Your task to perform on an android device: change the clock display to digital Image 0: 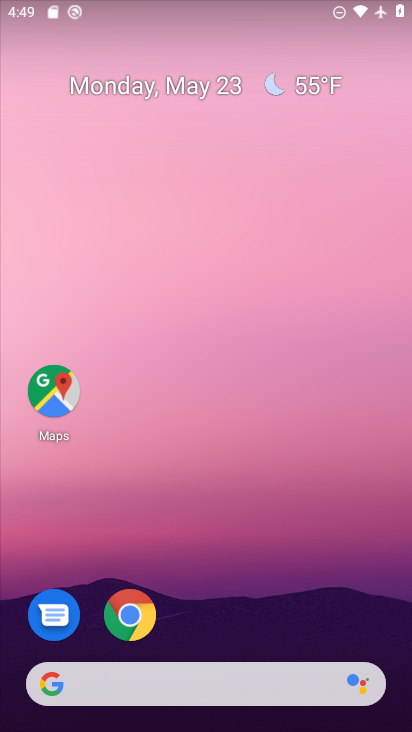
Step 0: drag from (358, 634) to (340, 278)
Your task to perform on an android device: change the clock display to digital Image 1: 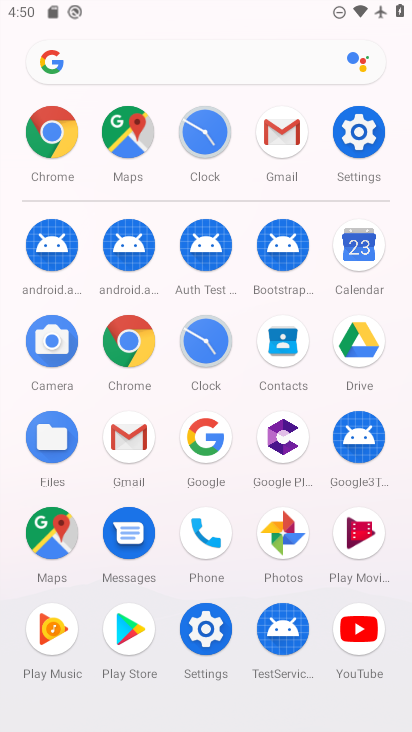
Step 1: click (215, 349)
Your task to perform on an android device: change the clock display to digital Image 2: 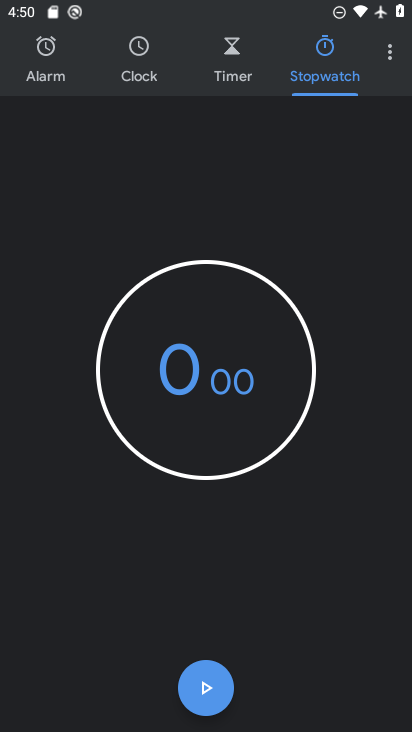
Step 2: click (385, 62)
Your task to perform on an android device: change the clock display to digital Image 3: 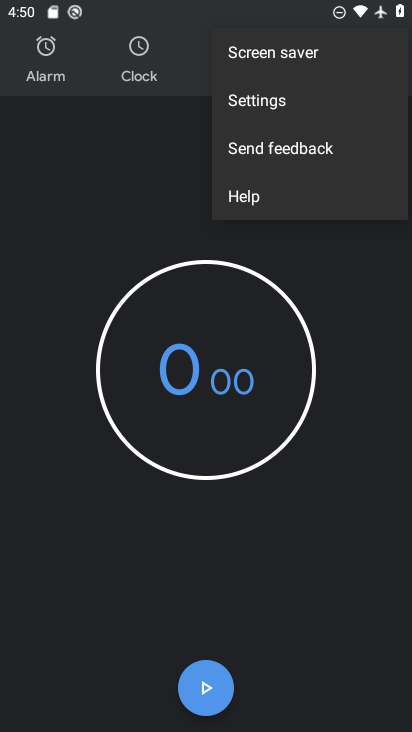
Step 3: click (269, 114)
Your task to perform on an android device: change the clock display to digital Image 4: 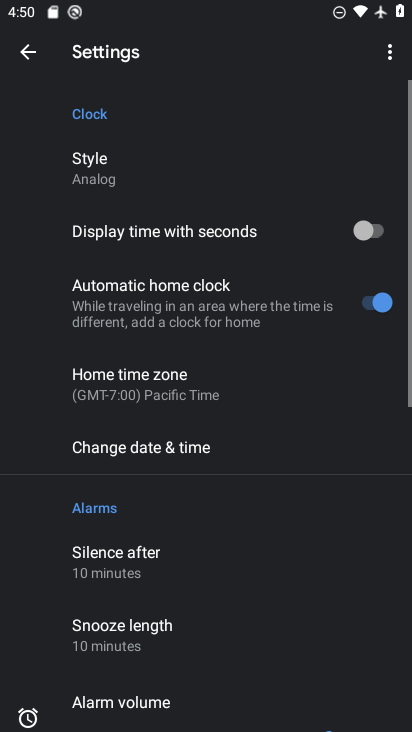
Step 4: drag from (283, 603) to (305, 459)
Your task to perform on an android device: change the clock display to digital Image 5: 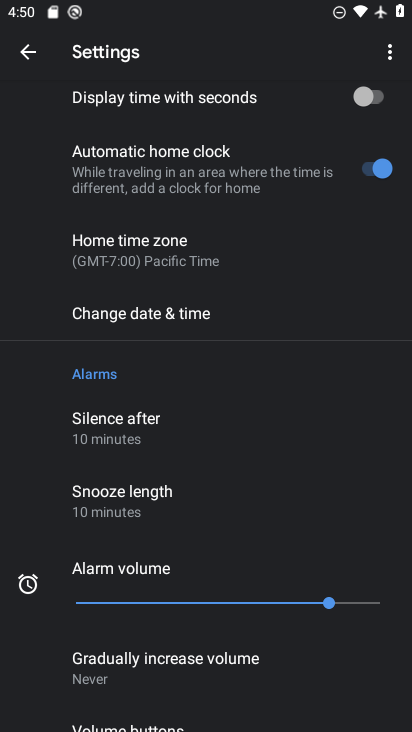
Step 5: drag from (322, 663) to (313, 510)
Your task to perform on an android device: change the clock display to digital Image 6: 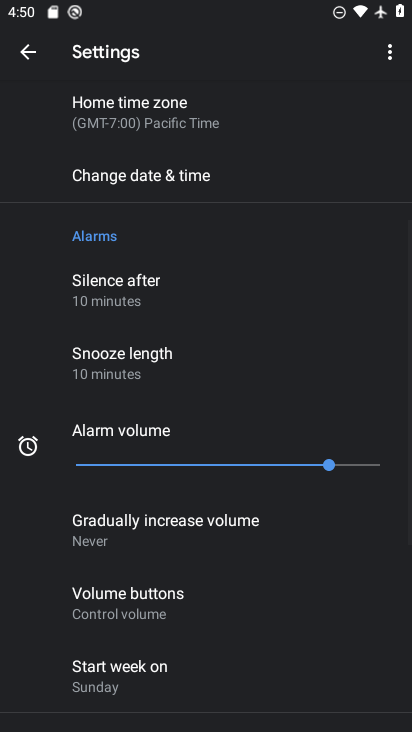
Step 6: drag from (289, 661) to (283, 493)
Your task to perform on an android device: change the clock display to digital Image 7: 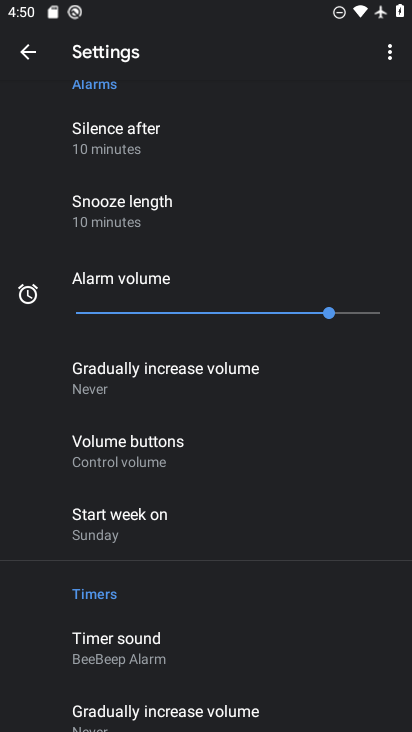
Step 7: drag from (290, 650) to (289, 441)
Your task to perform on an android device: change the clock display to digital Image 8: 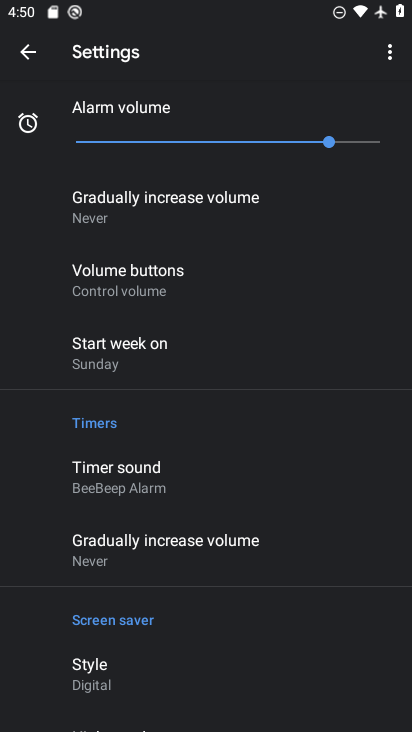
Step 8: drag from (298, 632) to (297, 460)
Your task to perform on an android device: change the clock display to digital Image 9: 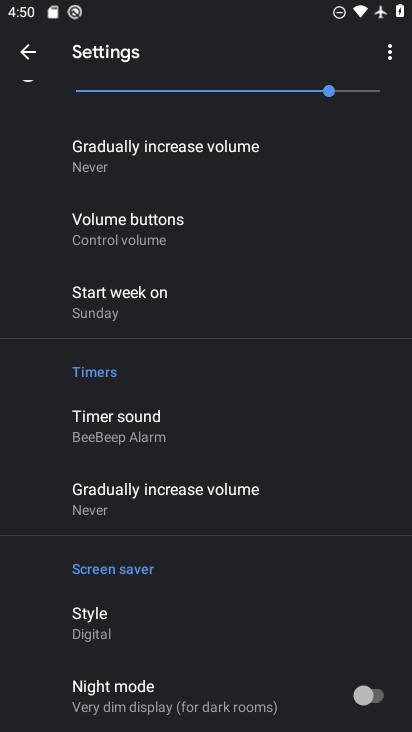
Step 9: drag from (282, 654) to (293, 463)
Your task to perform on an android device: change the clock display to digital Image 10: 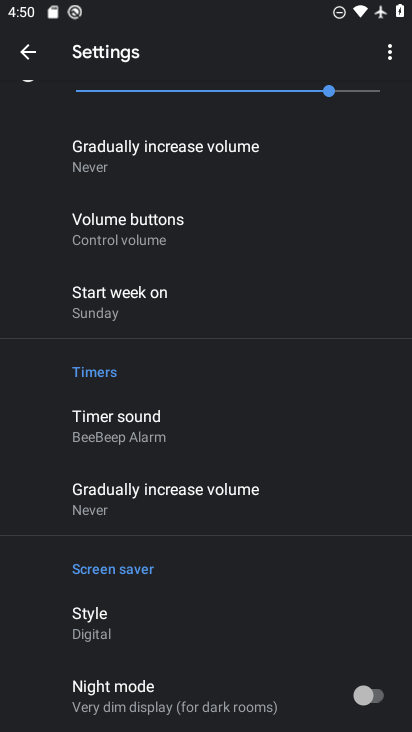
Step 10: drag from (334, 324) to (334, 526)
Your task to perform on an android device: change the clock display to digital Image 11: 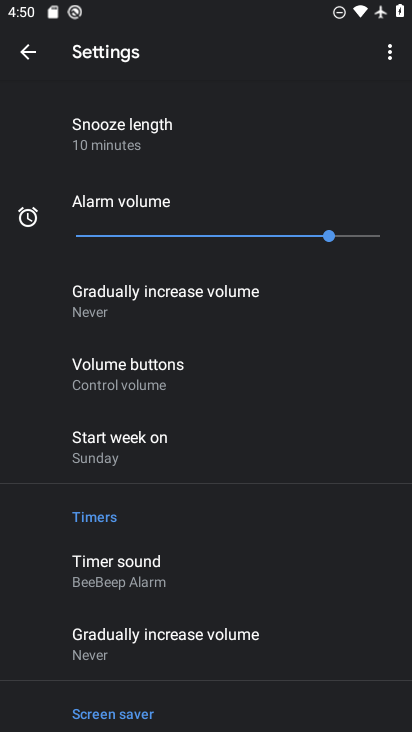
Step 11: drag from (354, 325) to (331, 499)
Your task to perform on an android device: change the clock display to digital Image 12: 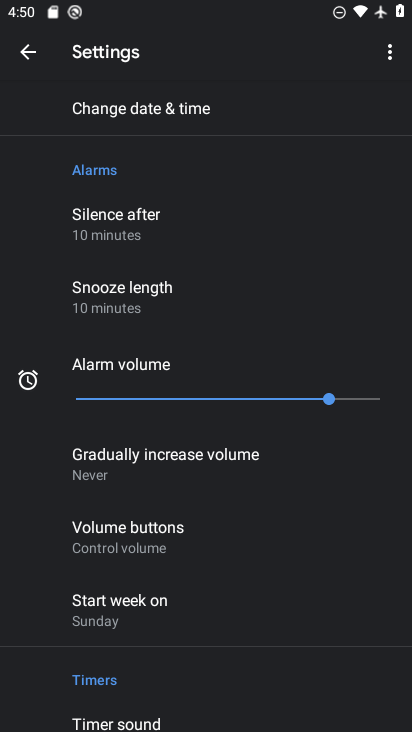
Step 12: drag from (352, 314) to (354, 451)
Your task to perform on an android device: change the clock display to digital Image 13: 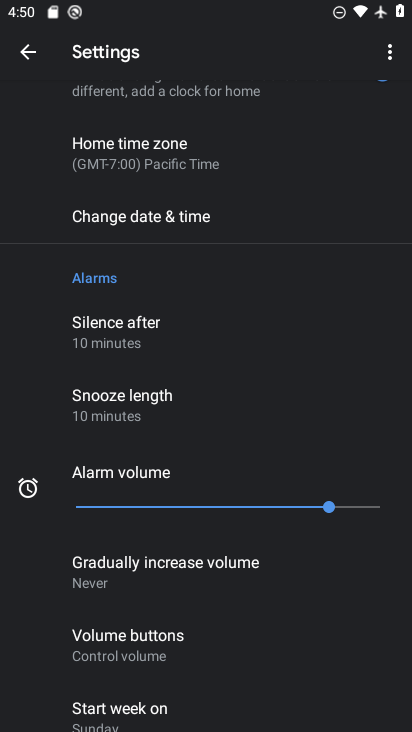
Step 13: drag from (356, 318) to (348, 463)
Your task to perform on an android device: change the clock display to digital Image 14: 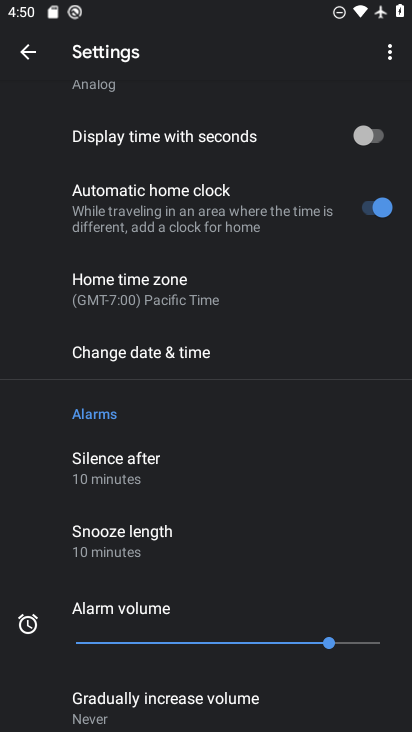
Step 14: drag from (309, 260) to (299, 422)
Your task to perform on an android device: change the clock display to digital Image 15: 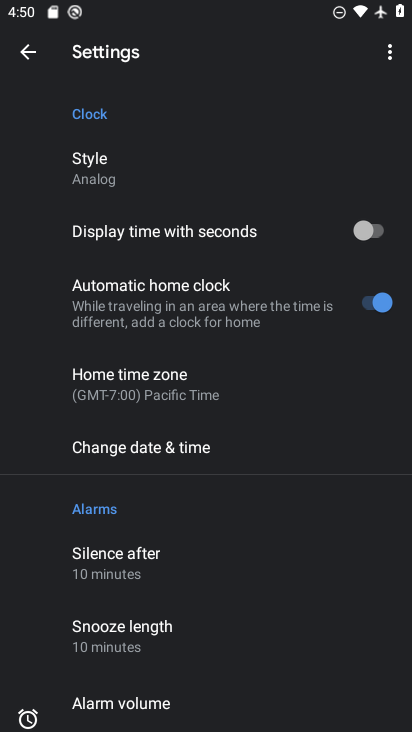
Step 15: click (76, 184)
Your task to perform on an android device: change the clock display to digital Image 16: 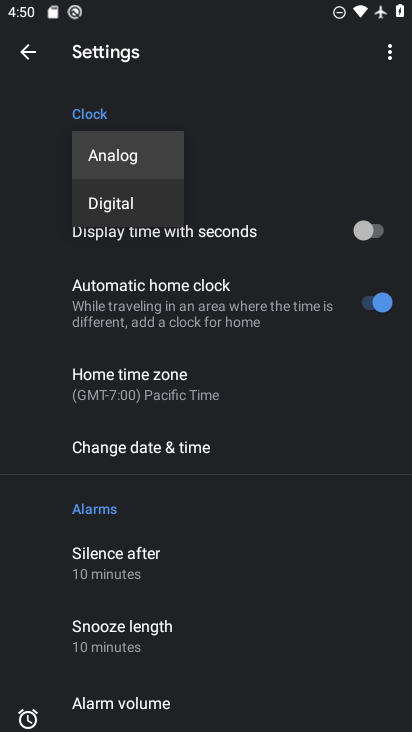
Step 16: click (129, 208)
Your task to perform on an android device: change the clock display to digital Image 17: 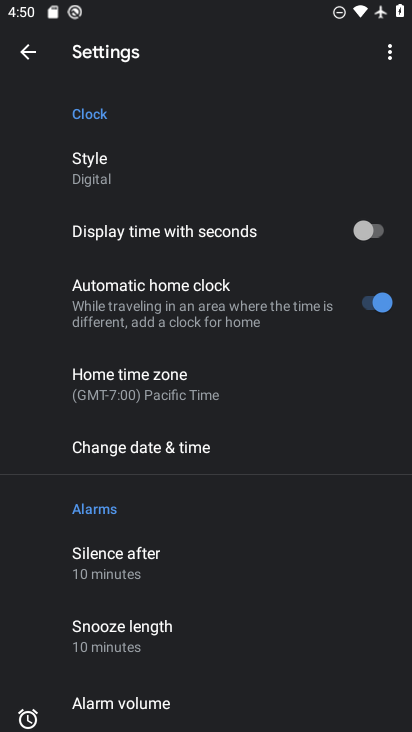
Step 17: task complete